Your task to perform on an android device: View the shopping cart on bestbuy. Add "usb-a" to the cart on bestbuy Image 0: 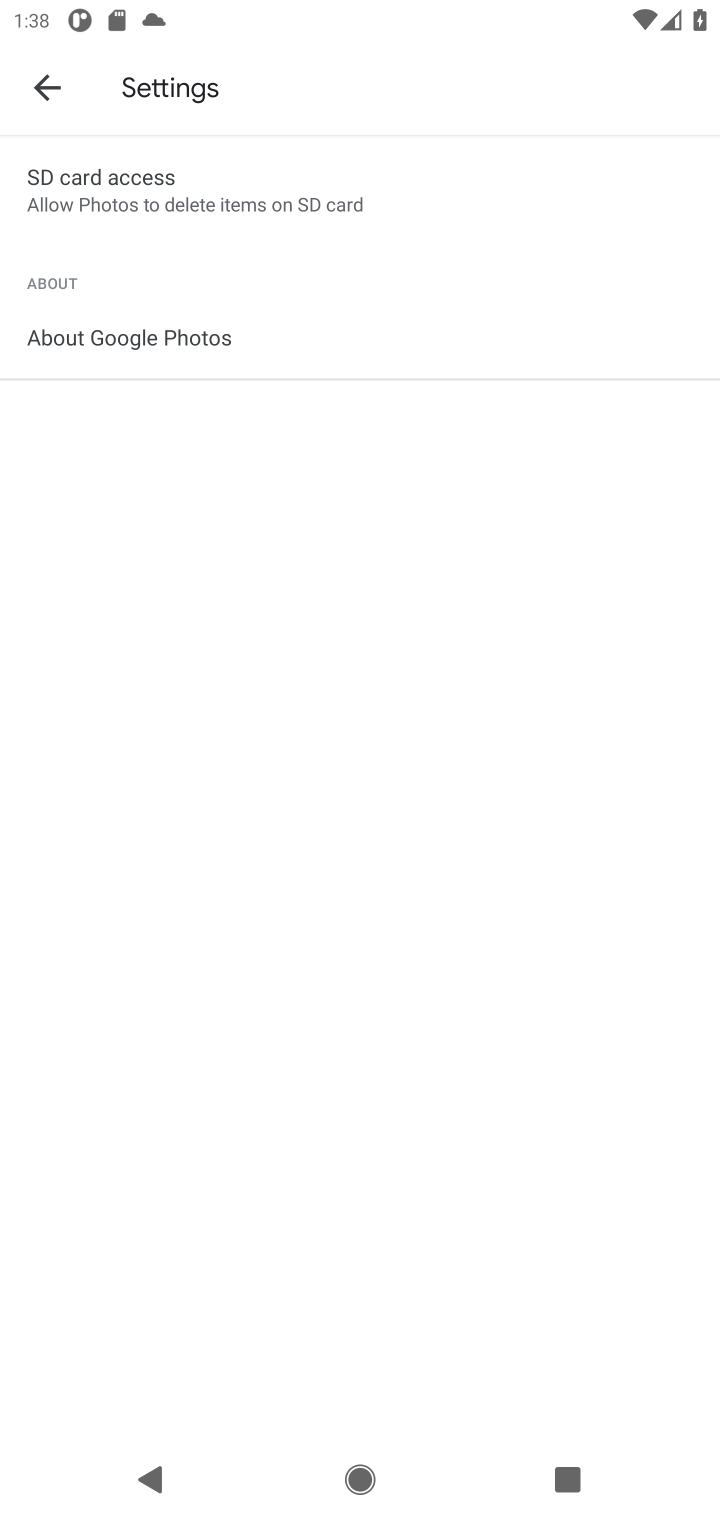
Step 0: press home button
Your task to perform on an android device: View the shopping cart on bestbuy. Add "usb-a" to the cart on bestbuy Image 1: 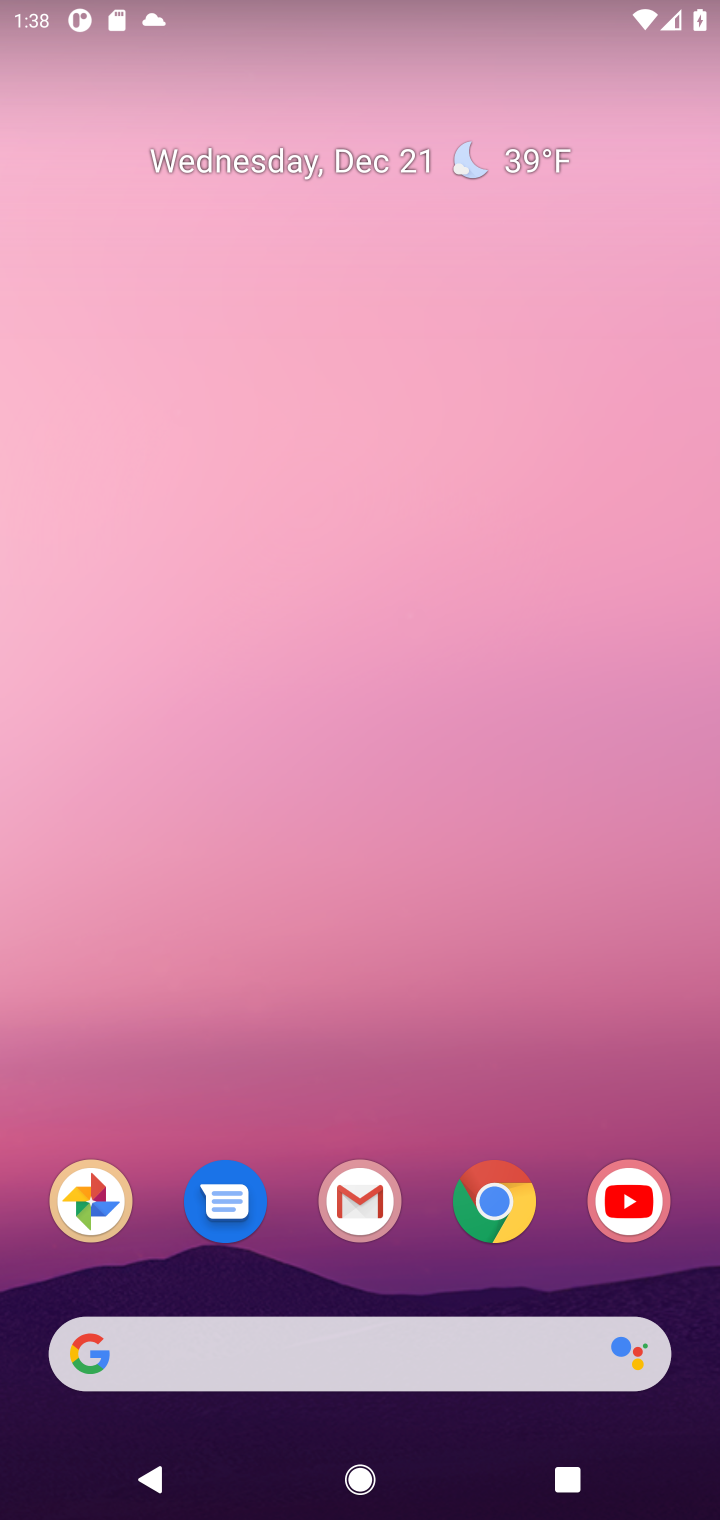
Step 1: click (487, 1206)
Your task to perform on an android device: View the shopping cart on bestbuy. Add "usb-a" to the cart on bestbuy Image 2: 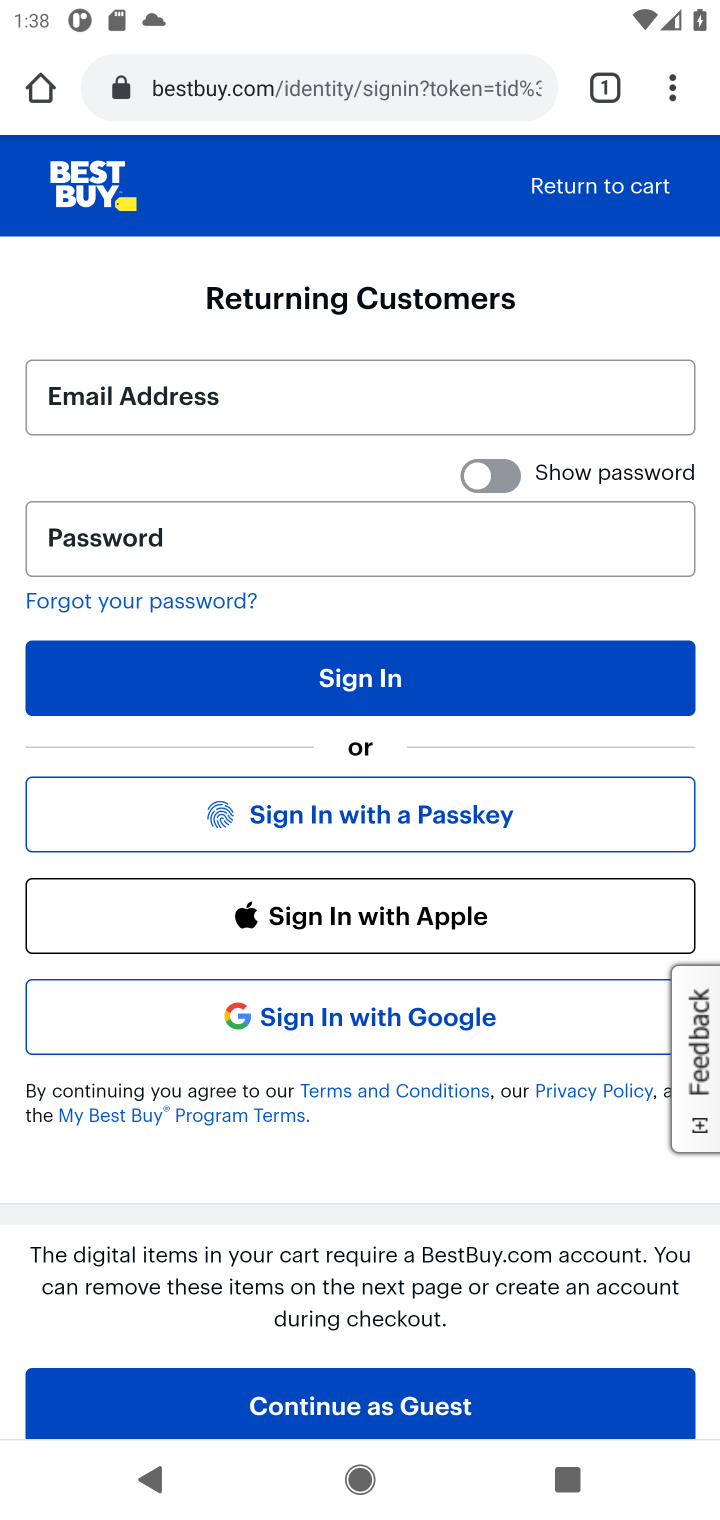
Step 2: press back button
Your task to perform on an android device: View the shopping cart on bestbuy. Add "usb-a" to the cart on bestbuy Image 3: 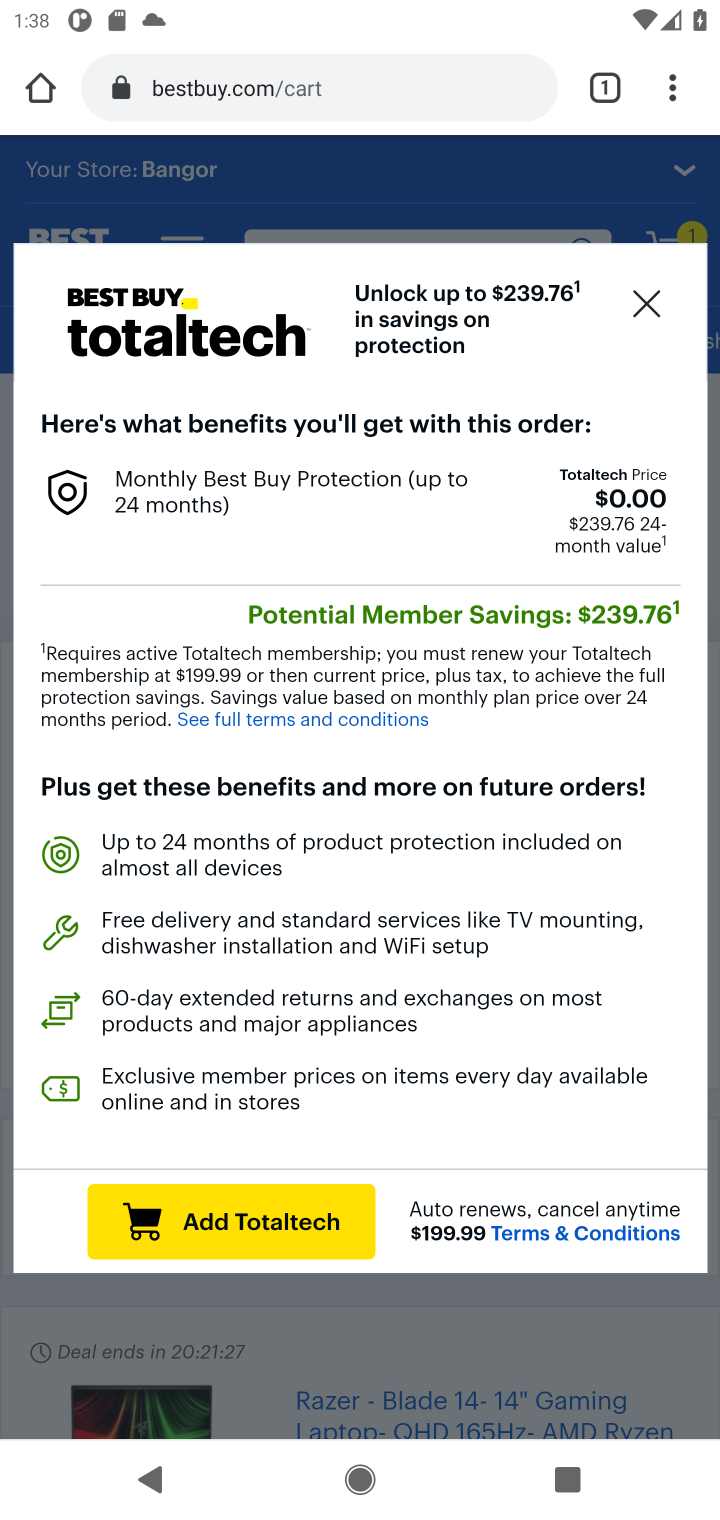
Step 3: click (656, 301)
Your task to perform on an android device: View the shopping cart on bestbuy. Add "usb-a" to the cart on bestbuy Image 4: 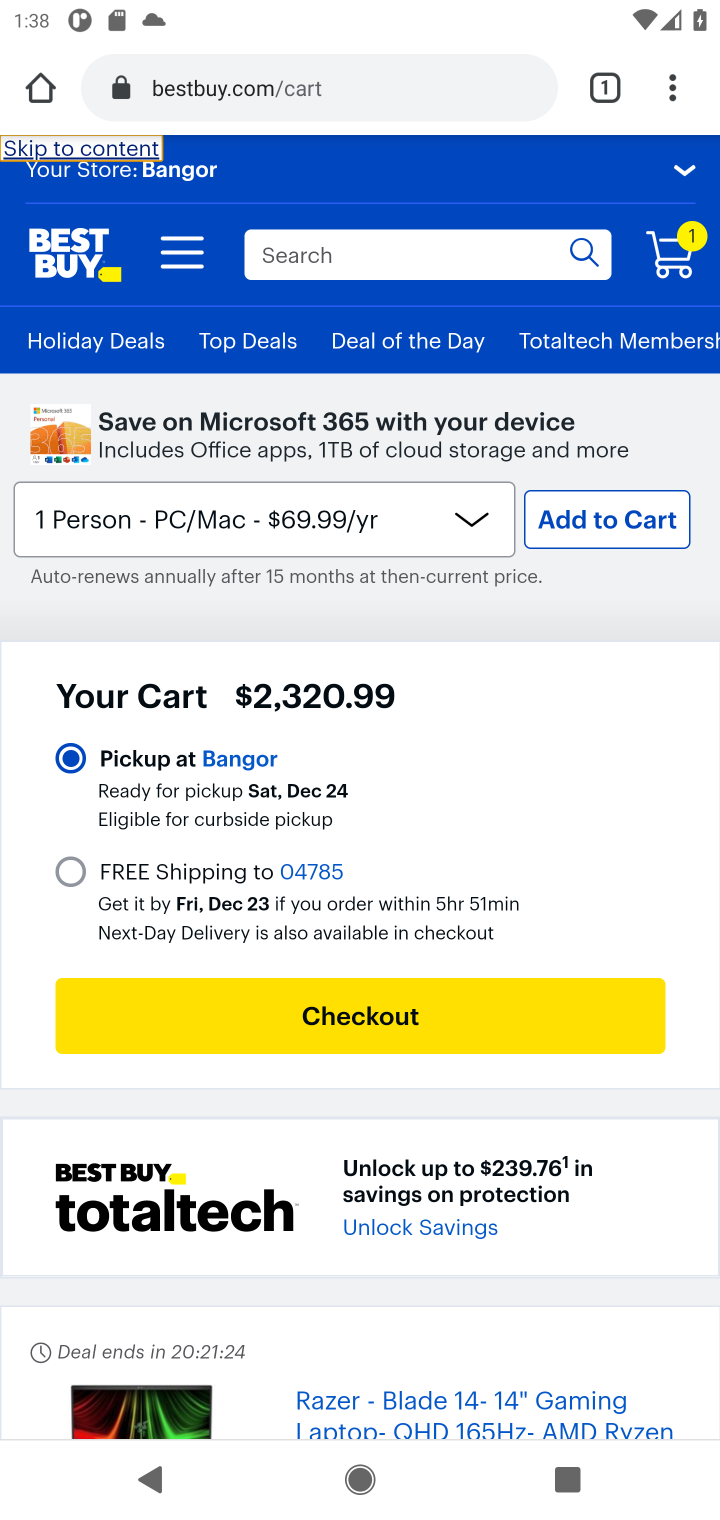
Step 4: drag from (344, 994) to (348, 814)
Your task to perform on an android device: View the shopping cart on bestbuy. Add "usb-a" to the cart on bestbuy Image 5: 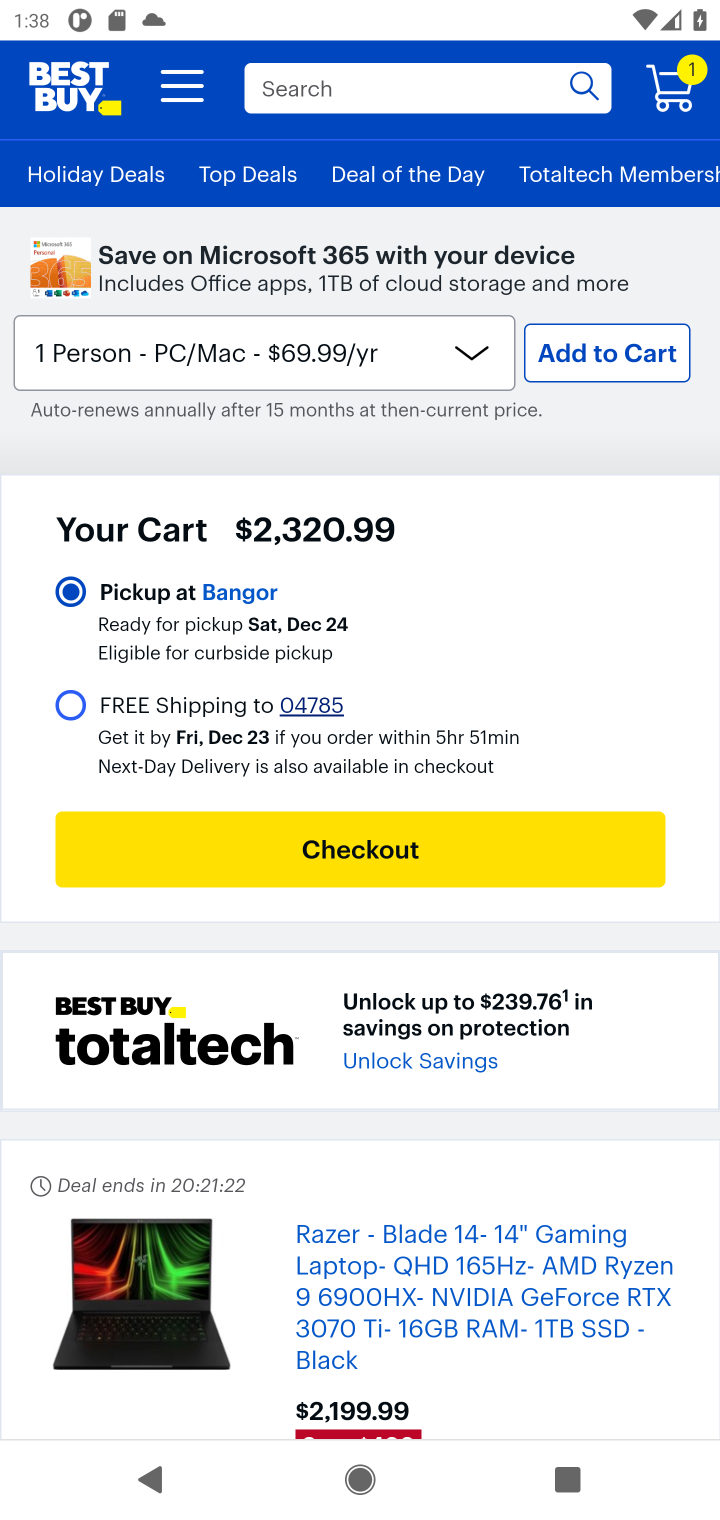
Step 5: click (354, 80)
Your task to perform on an android device: View the shopping cart on bestbuy. Add "usb-a" to the cart on bestbuy Image 6: 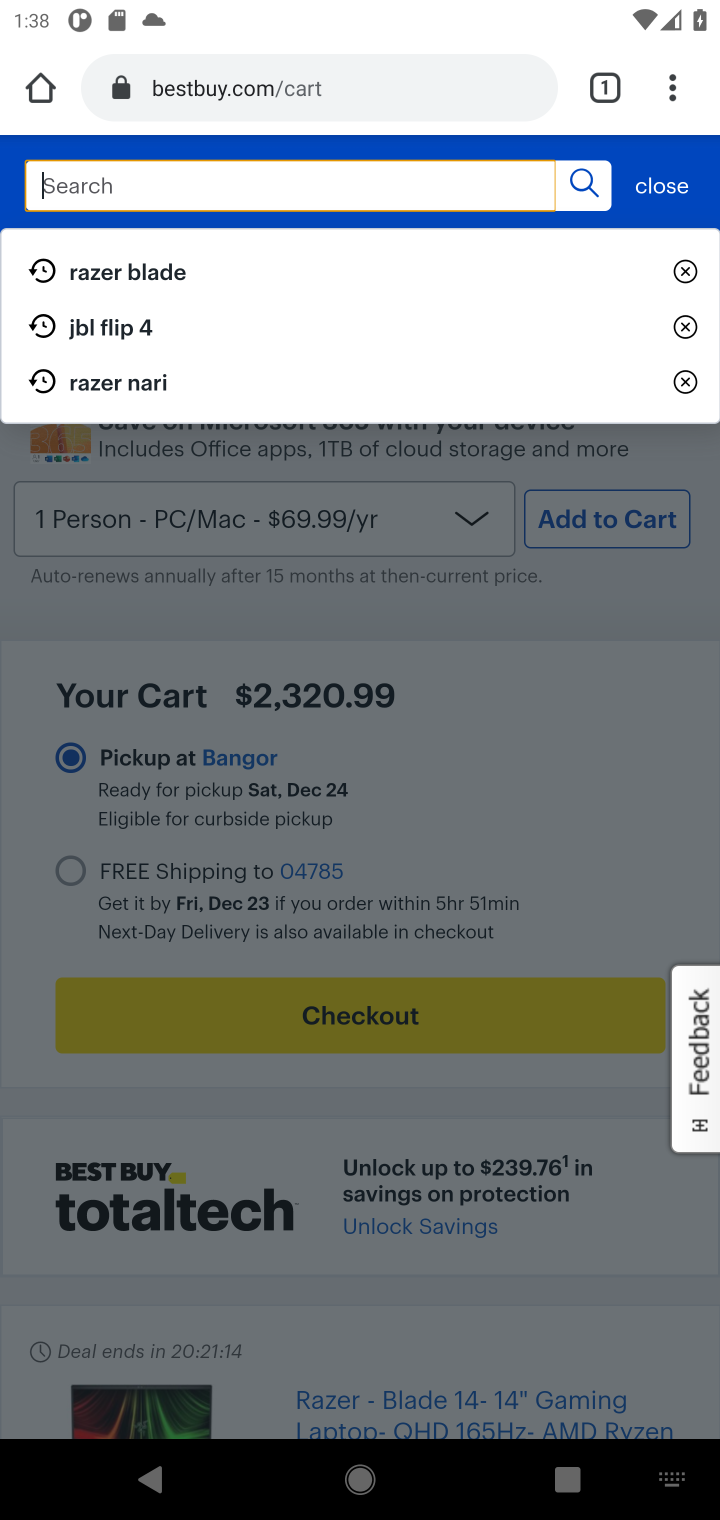
Step 6: type "usb-a"
Your task to perform on an android device: View the shopping cart on bestbuy. Add "usb-a" to the cart on bestbuy Image 7: 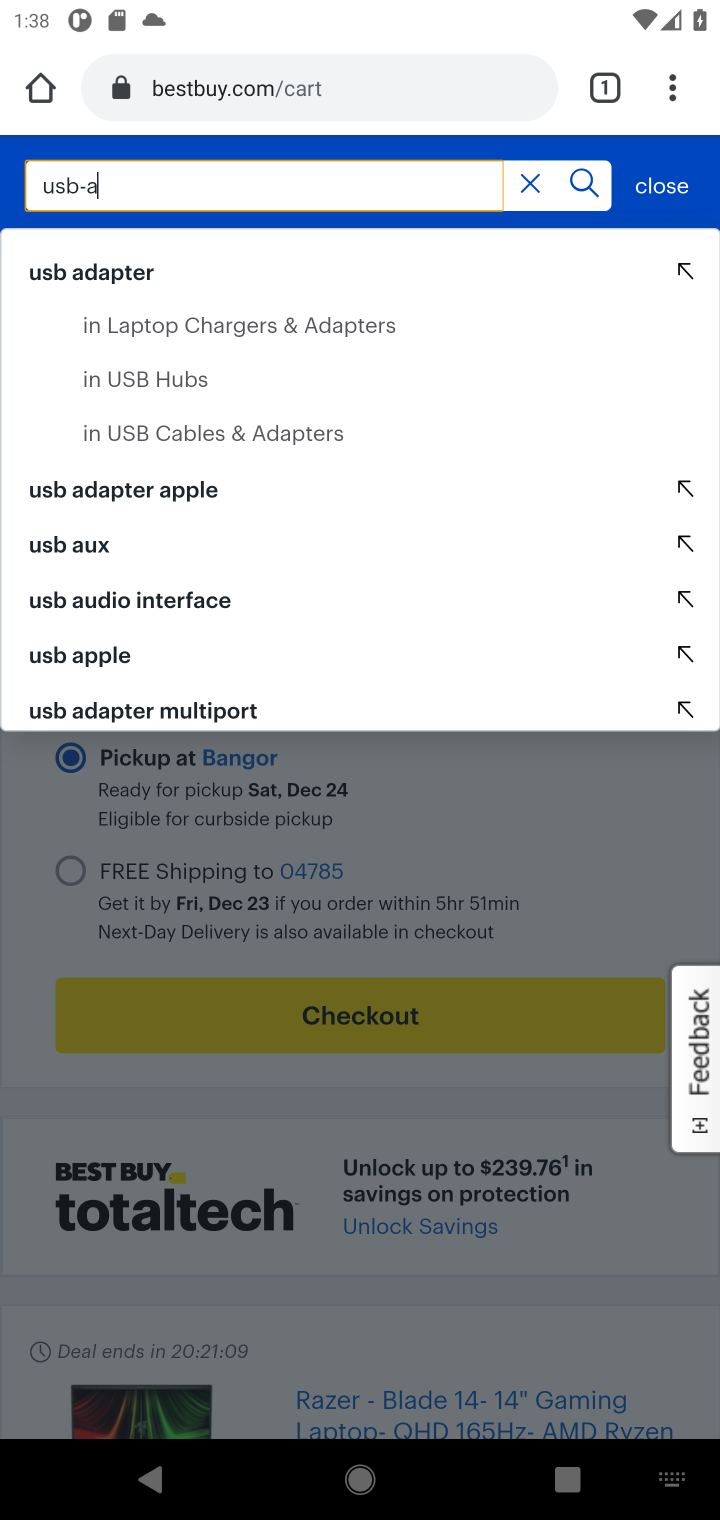
Step 7: click (587, 167)
Your task to perform on an android device: View the shopping cart on bestbuy. Add "usb-a" to the cart on bestbuy Image 8: 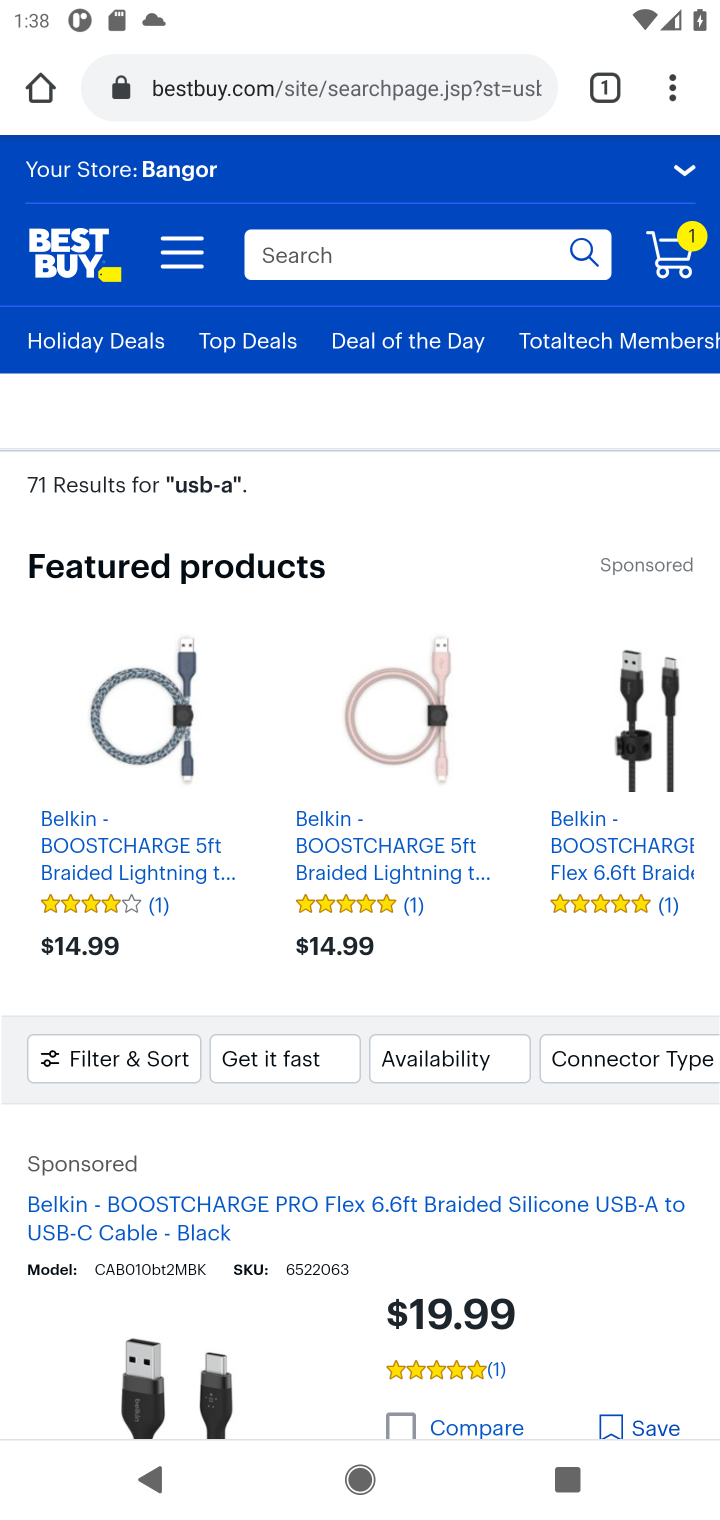
Step 8: drag from (341, 944) to (352, 543)
Your task to perform on an android device: View the shopping cart on bestbuy. Add "usb-a" to the cart on bestbuy Image 9: 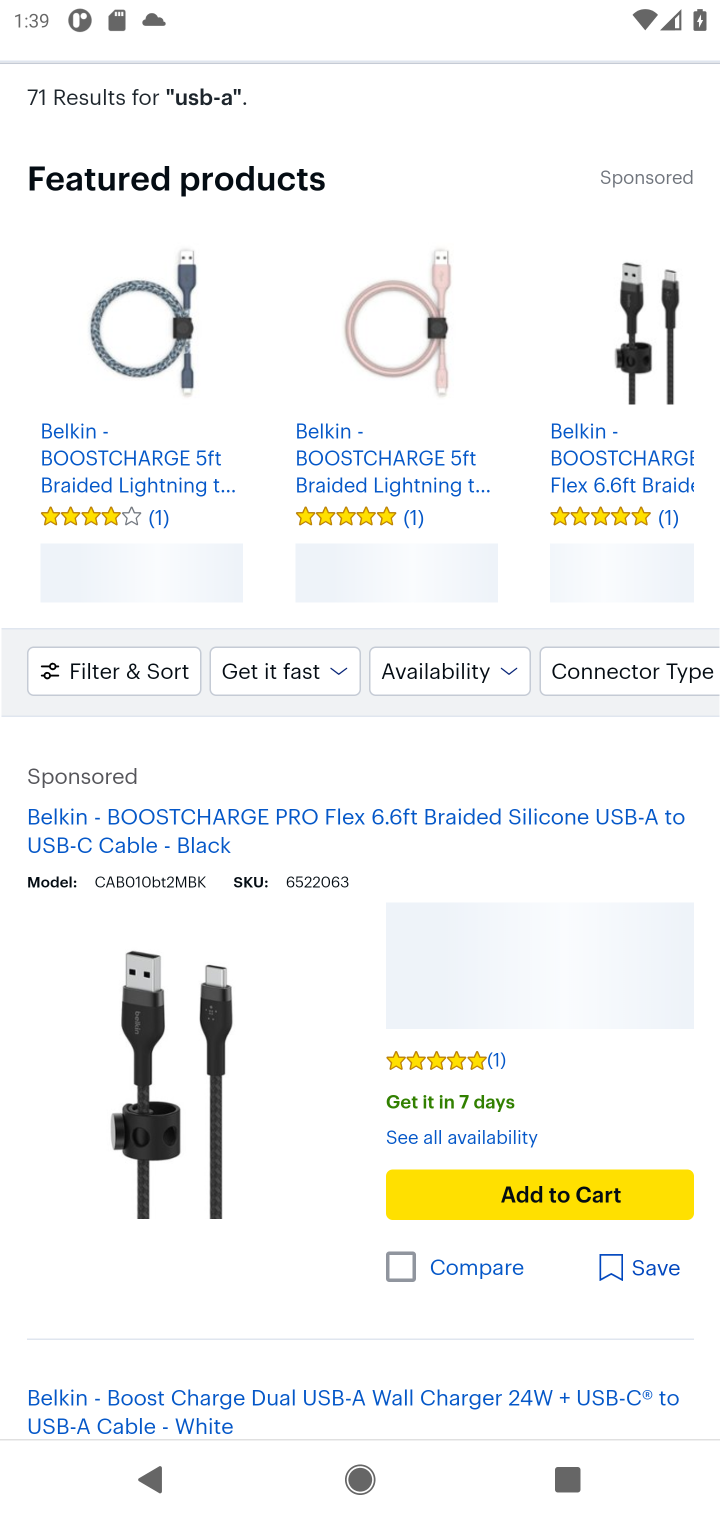
Step 9: drag from (318, 1047) to (318, 748)
Your task to perform on an android device: View the shopping cart on bestbuy. Add "usb-a" to the cart on bestbuy Image 10: 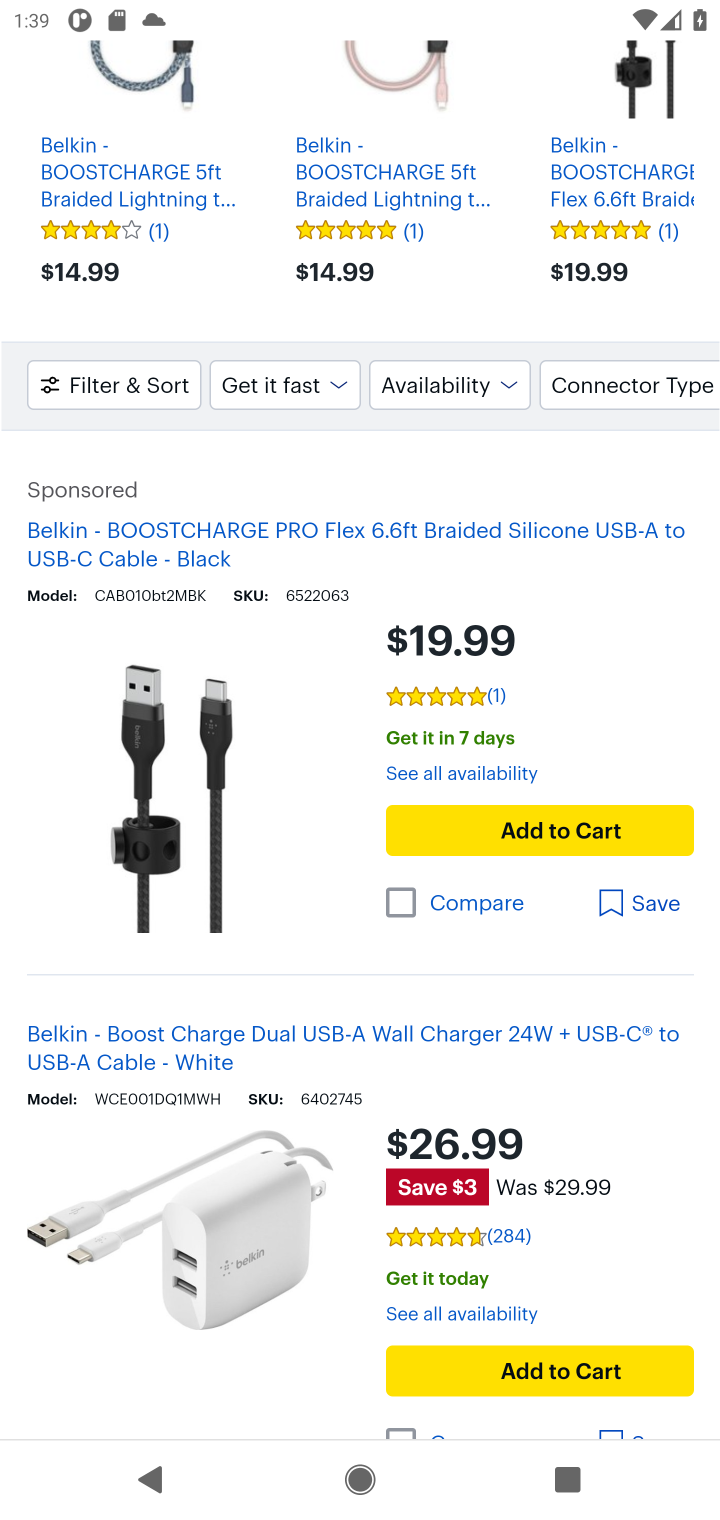
Step 10: click (538, 833)
Your task to perform on an android device: View the shopping cart on bestbuy. Add "usb-a" to the cart on bestbuy Image 11: 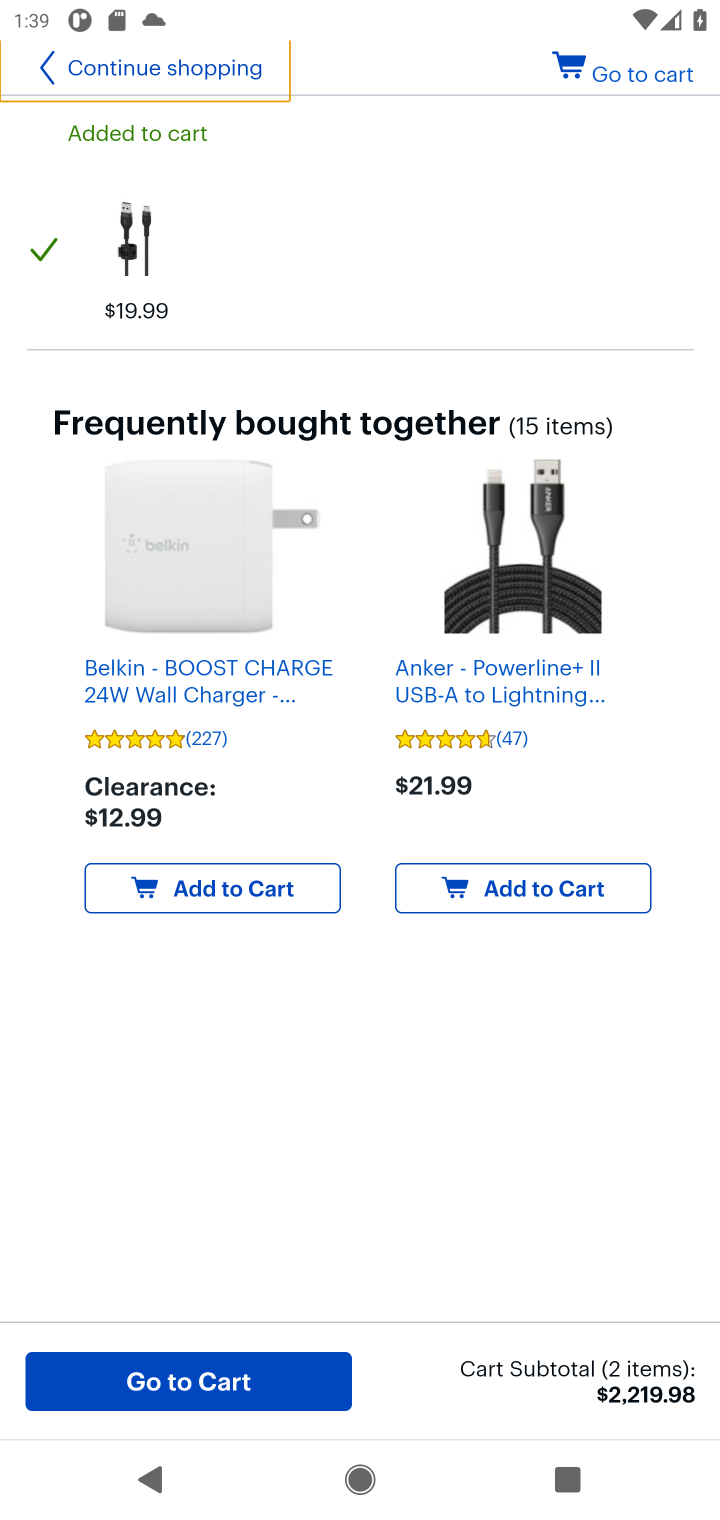
Step 11: task complete